Your task to perform on an android device: Open maps Image 0: 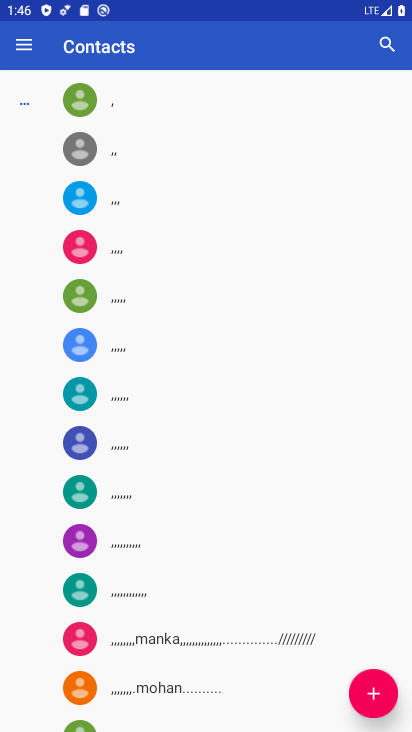
Step 0: press home button
Your task to perform on an android device: Open maps Image 1: 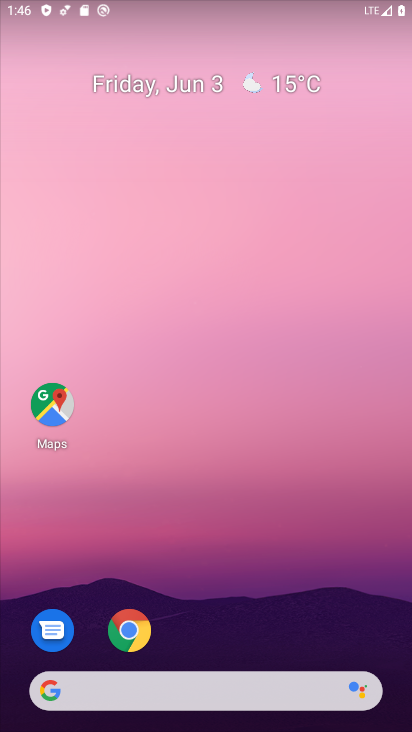
Step 1: click (60, 388)
Your task to perform on an android device: Open maps Image 2: 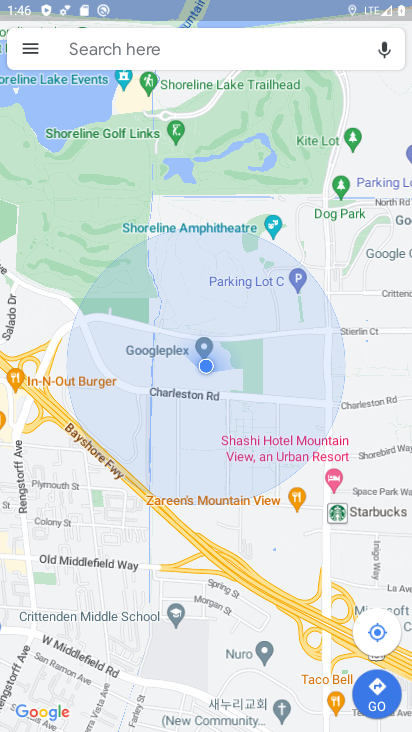
Step 2: task complete